Your task to perform on an android device: What is the news today? Image 0: 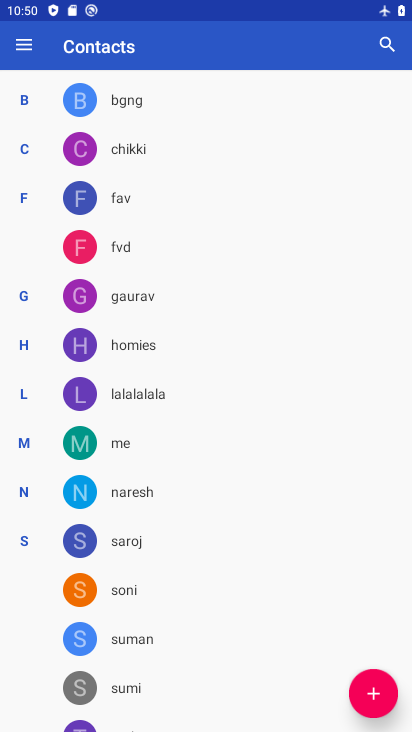
Step 0: press home button
Your task to perform on an android device: What is the news today? Image 1: 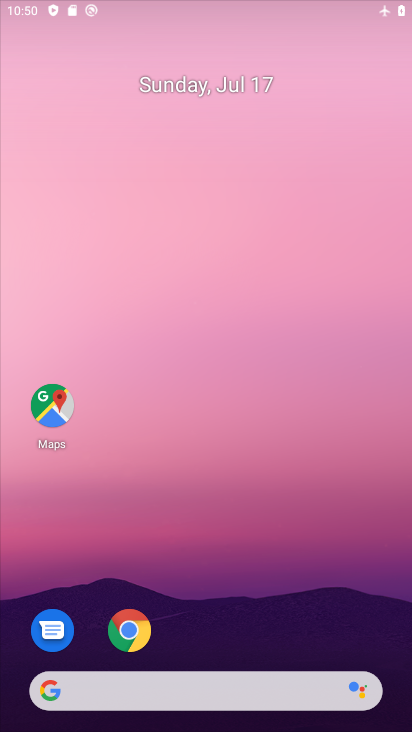
Step 1: click (205, 689)
Your task to perform on an android device: What is the news today? Image 2: 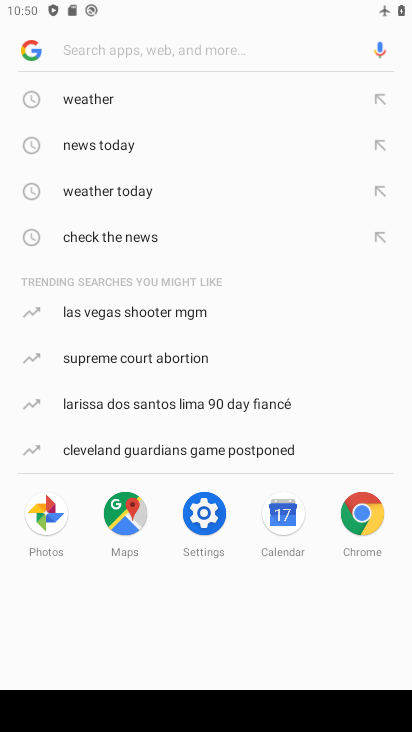
Step 2: click (113, 138)
Your task to perform on an android device: What is the news today? Image 3: 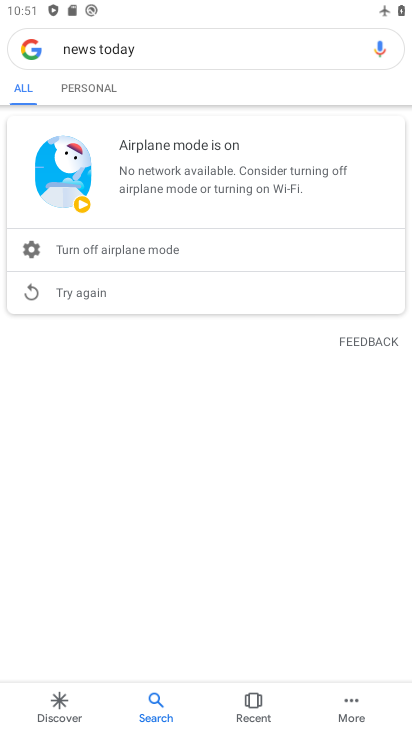
Step 3: click (87, 292)
Your task to perform on an android device: What is the news today? Image 4: 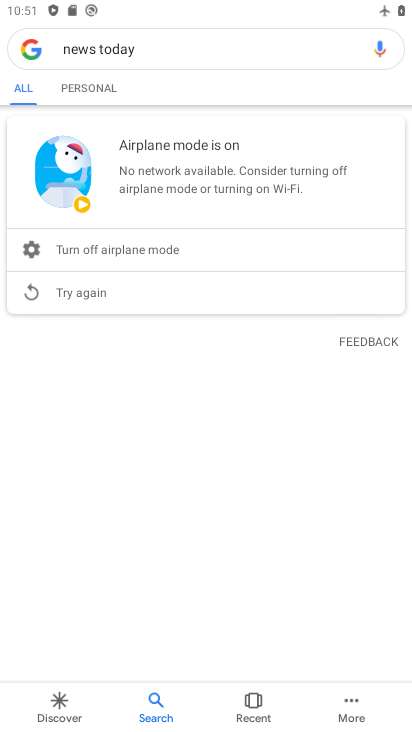
Step 4: task complete